Your task to perform on an android device: Go to Google Image 0: 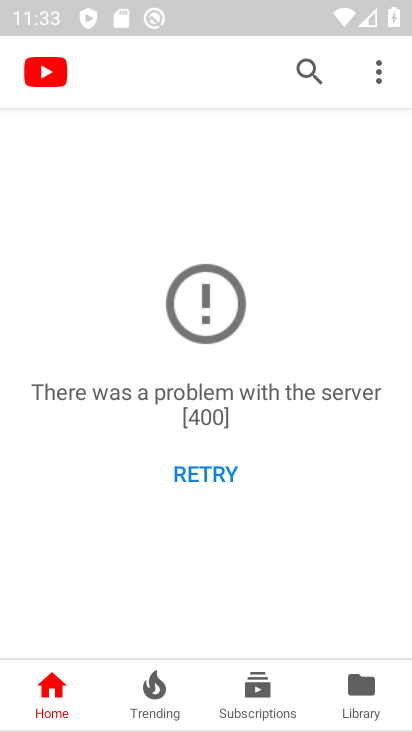
Step 0: press back button
Your task to perform on an android device: Go to Google Image 1: 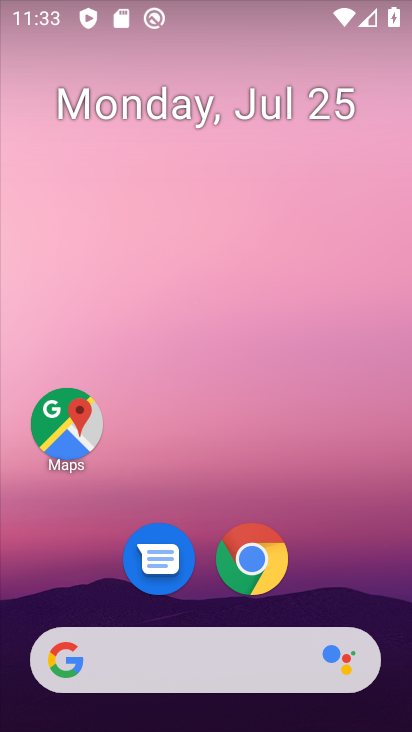
Step 1: drag from (117, 474) to (349, 17)
Your task to perform on an android device: Go to Google Image 2: 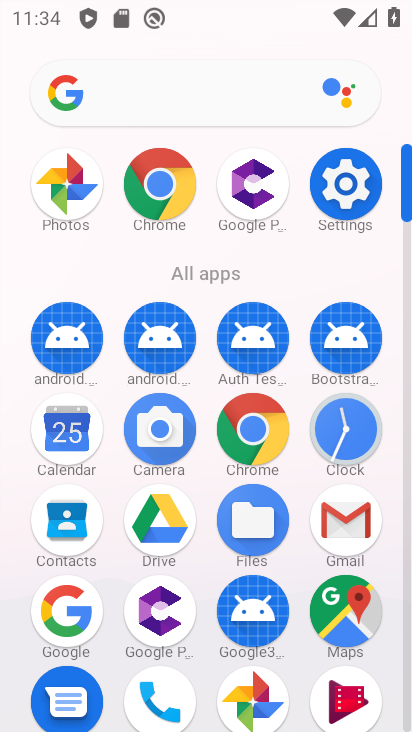
Step 2: click (83, 597)
Your task to perform on an android device: Go to Google Image 3: 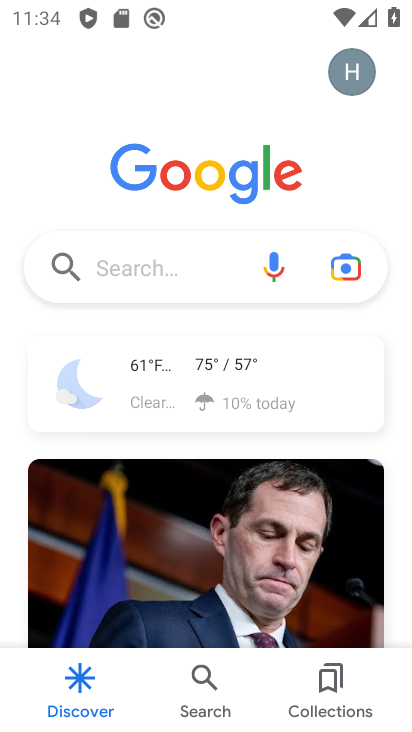
Step 3: task complete